Your task to perform on an android device: find snoozed emails in the gmail app Image 0: 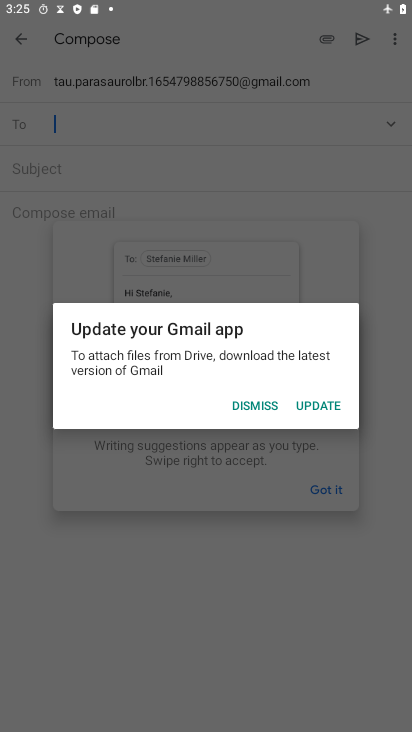
Step 0: press home button
Your task to perform on an android device: find snoozed emails in the gmail app Image 1: 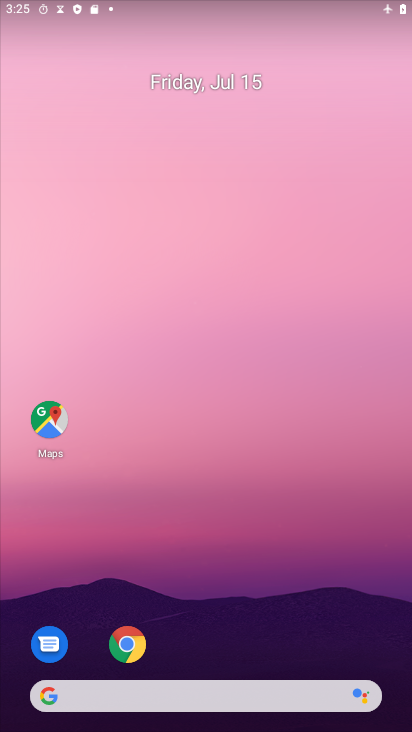
Step 1: drag from (308, 695) to (281, 3)
Your task to perform on an android device: find snoozed emails in the gmail app Image 2: 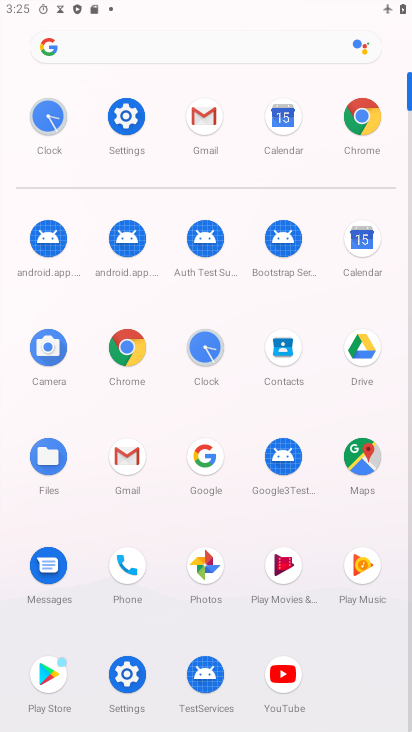
Step 2: click (124, 457)
Your task to perform on an android device: find snoozed emails in the gmail app Image 3: 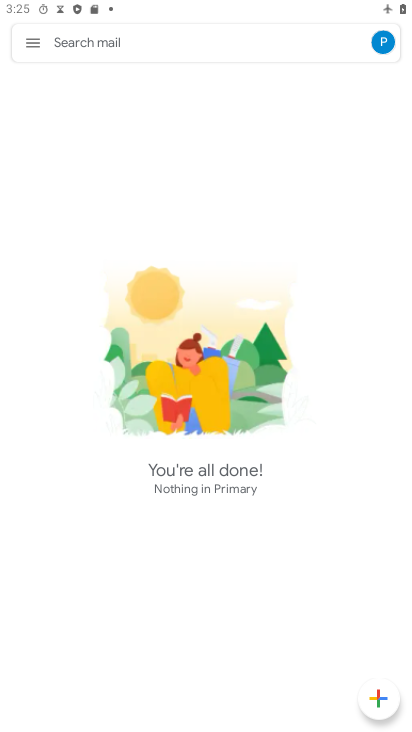
Step 3: click (29, 37)
Your task to perform on an android device: find snoozed emails in the gmail app Image 4: 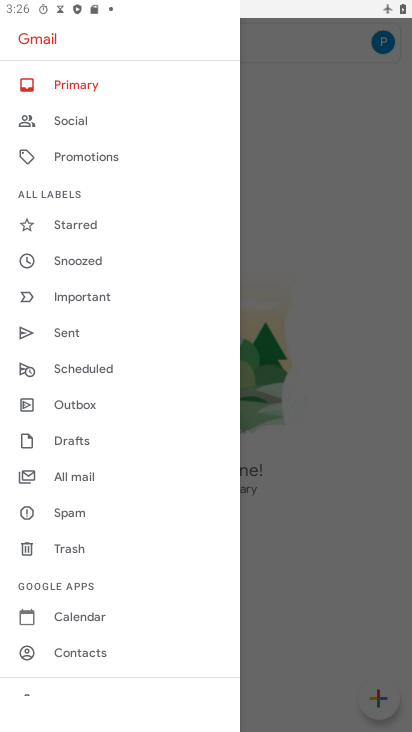
Step 4: click (69, 248)
Your task to perform on an android device: find snoozed emails in the gmail app Image 5: 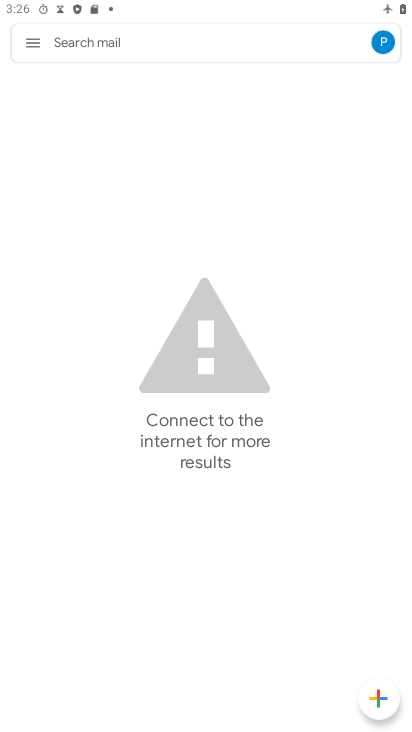
Step 5: task complete